Your task to perform on an android device: set the stopwatch Image 0: 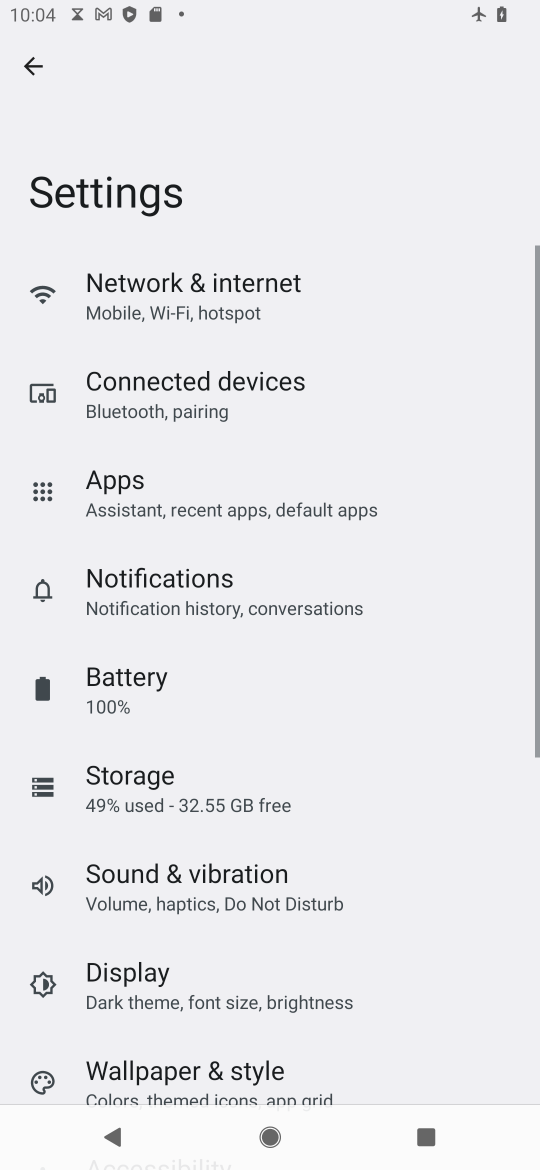
Step 0: press back button
Your task to perform on an android device: set the stopwatch Image 1: 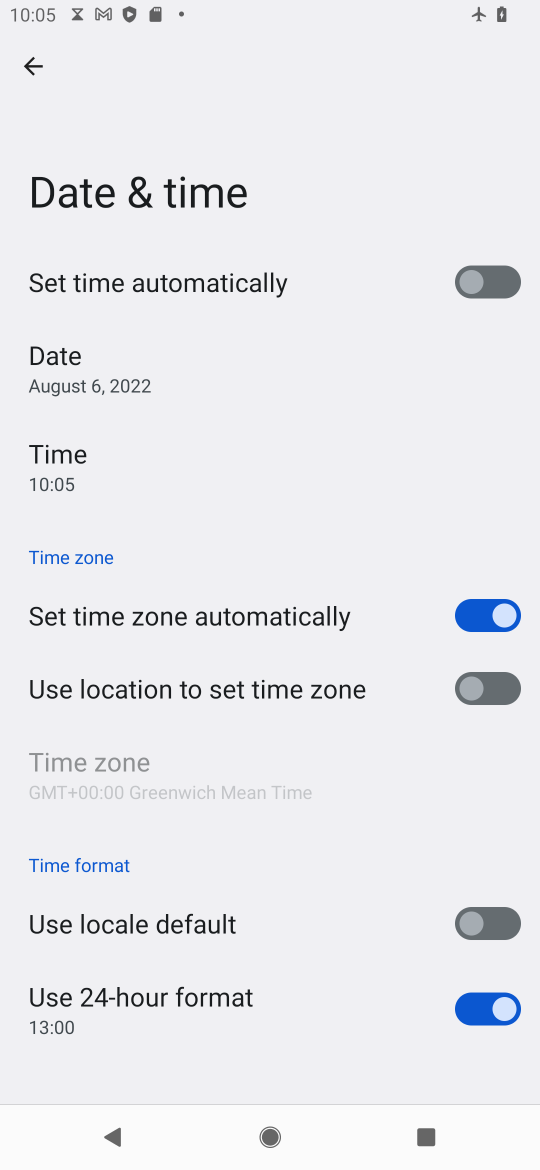
Step 1: press home button
Your task to perform on an android device: set the stopwatch Image 2: 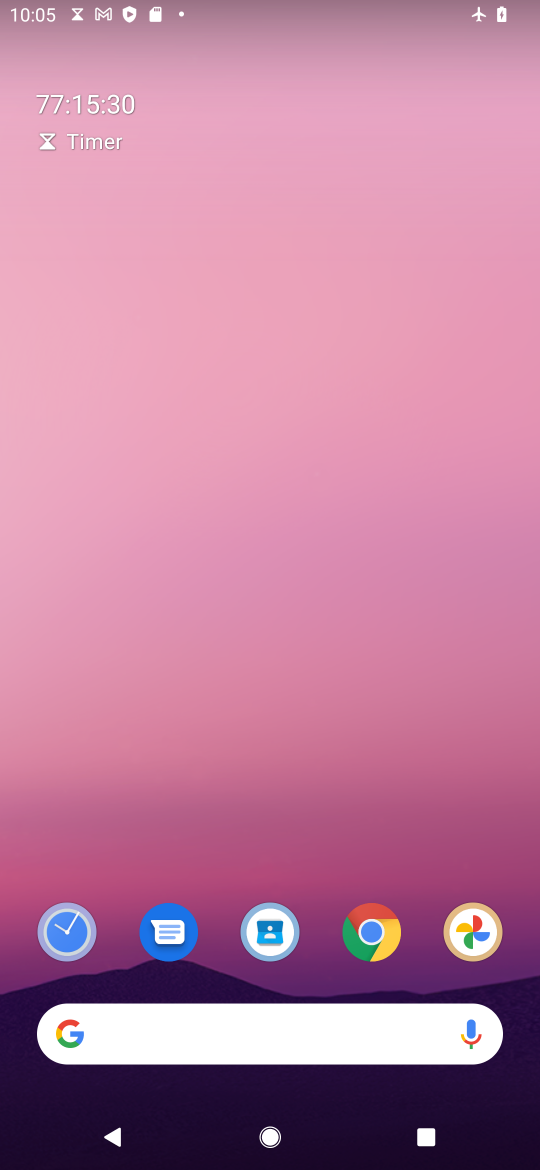
Step 2: click (87, 937)
Your task to perform on an android device: set the stopwatch Image 3: 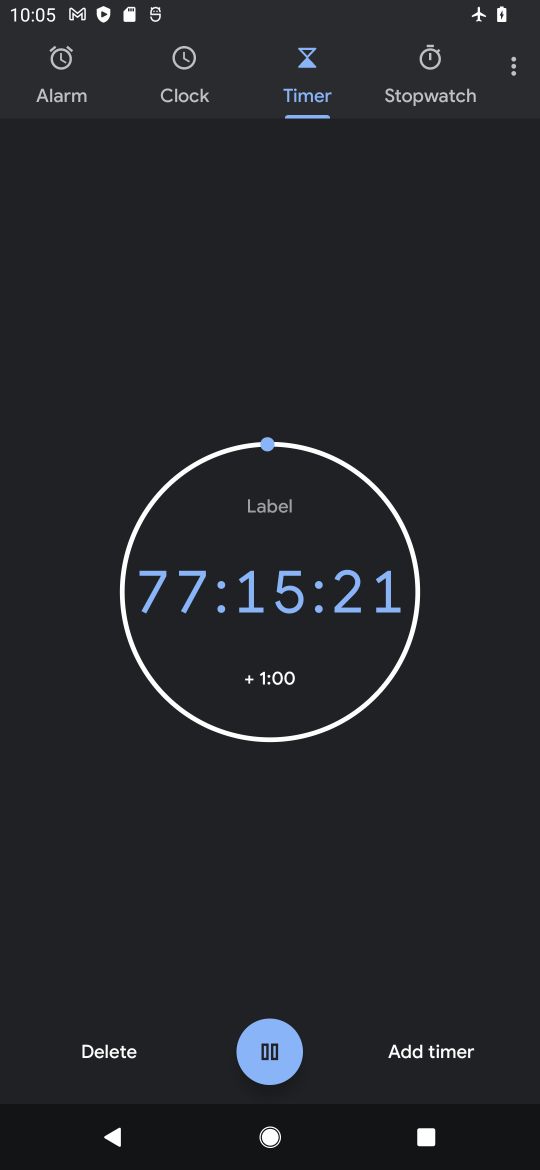
Step 3: click (458, 100)
Your task to perform on an android device: set the stopwatch Image 4: 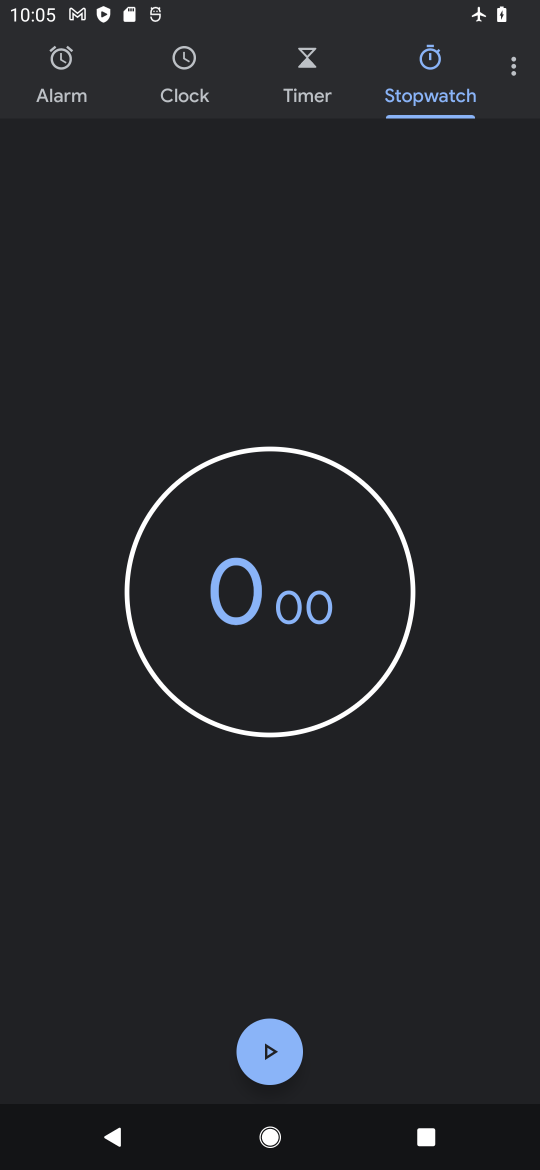
Step 4: click (277, 1071)
Your task to perform on an android device: set the stopwatch Image 5: 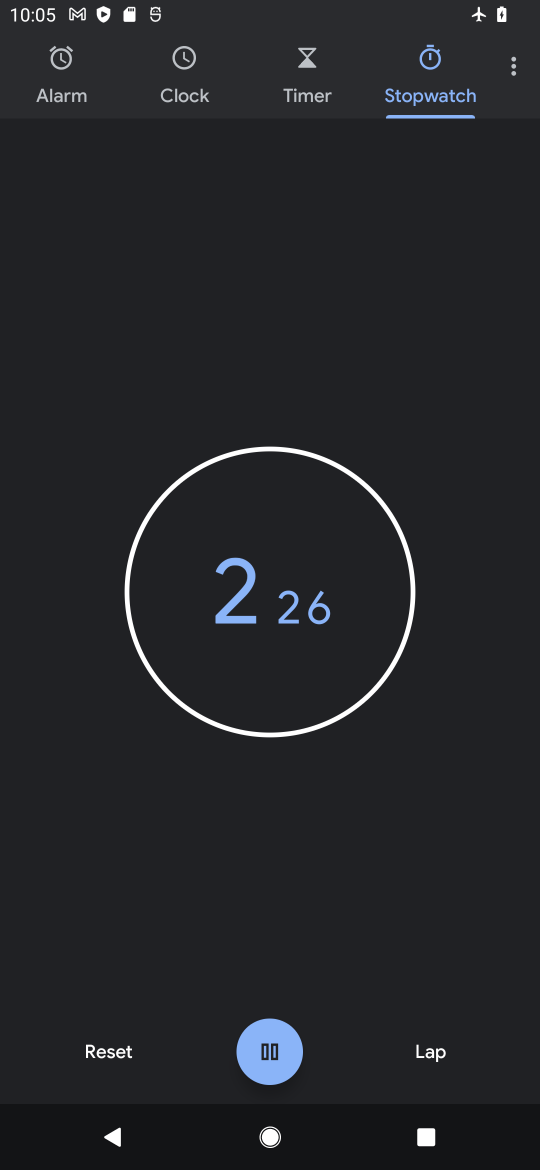
Step 5: task complete